Your task to perform on an android device: check storage Image 0: 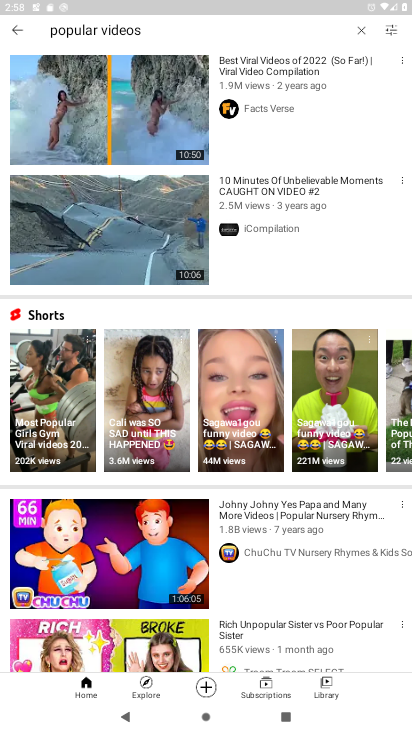
Step 0: press home button
Your task to perform on an android device: check storage Image 1: 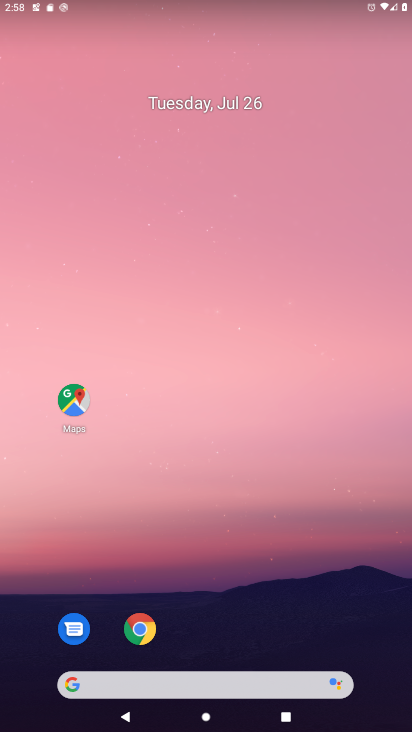
Step 1: drag from (190, 645) to (179, 291)
Your task to perform on an android device: check storage Image 2: 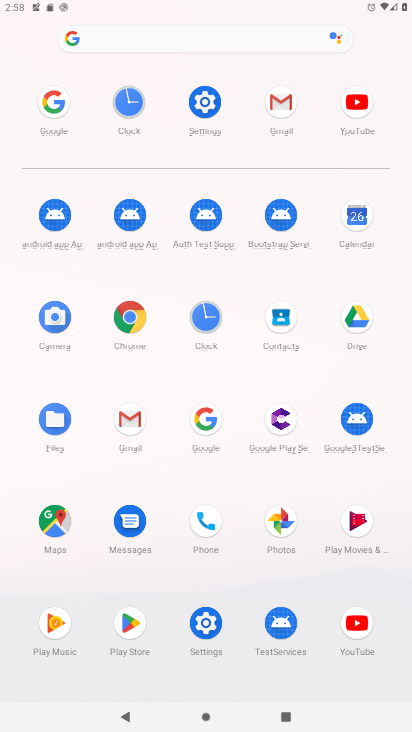
Step 2: click (200, 103)
Your task to perform on an android device: check storage Image 3: 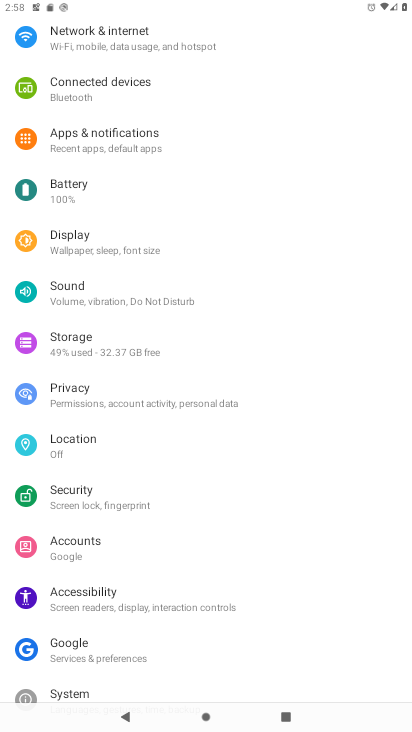
Step 3: click (103, 350)
Your task to perform on an android device: check storage Image 4: 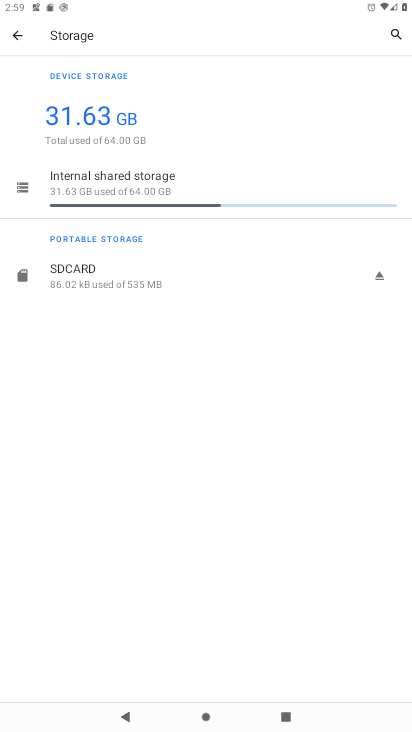
Step 4: task complete